Your task to perform on an android device: Go to privacy settings Image 0: 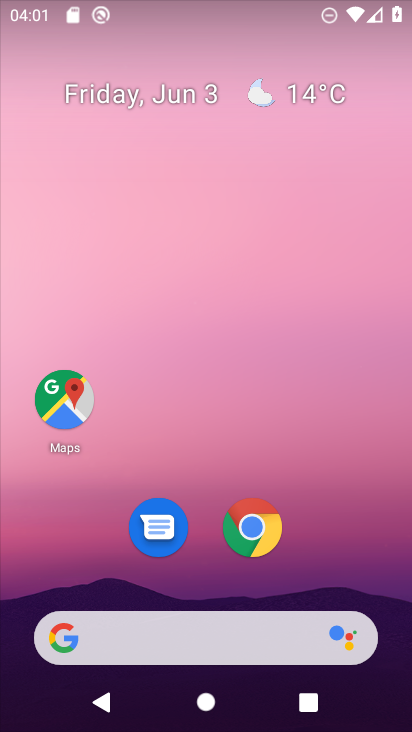
Step 0: drag from (324, 557) to (237, 54)
Your task to perform on an android device: Go to privacy settings Image 1: 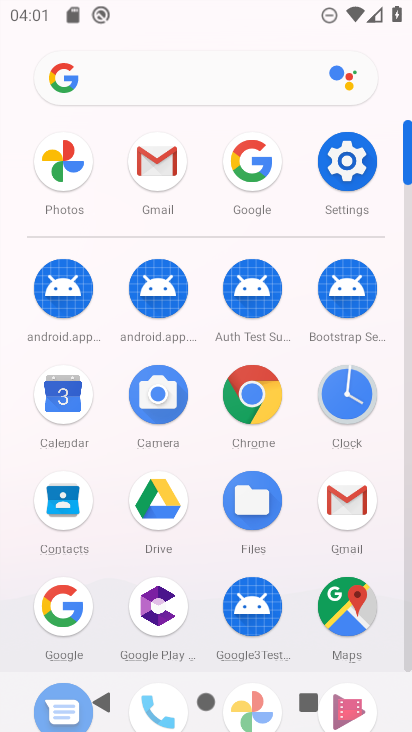
Step 1: click (347, 161)
Your task to perform on an android device: Go to privacy settings Image 2: 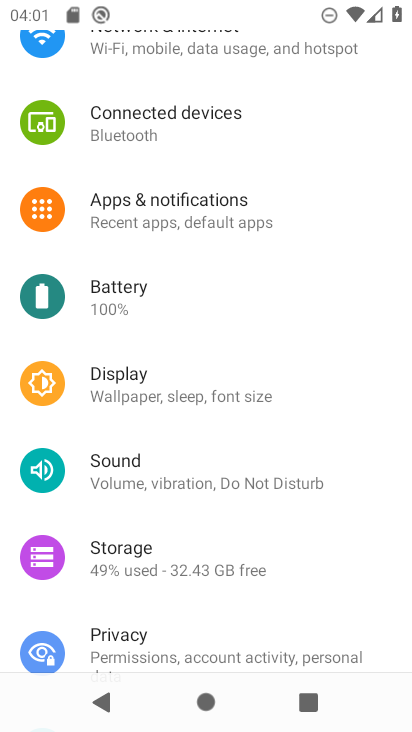
Step 2: drag from (183, 548) to (247, 430)
Your task to perform on an android device: Go to privacy settings Image 3: 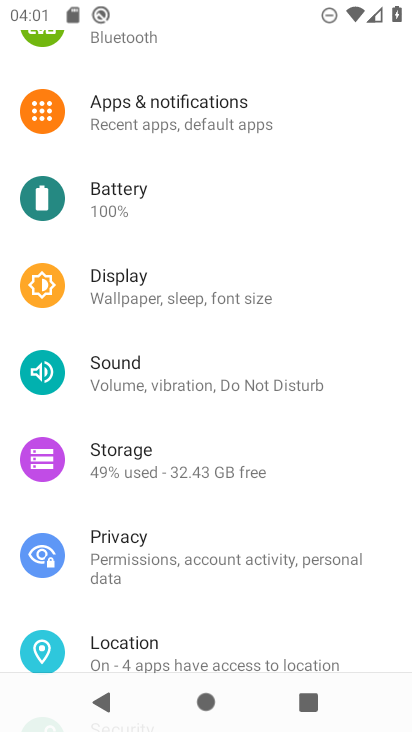
Step 3: click (189, 553)
Your task to perform on an android device: Go to privacy settings Image 4: 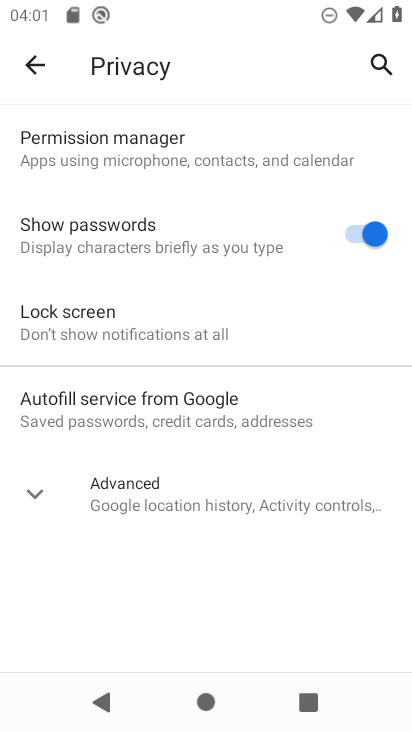
Step 4: task complete